Your task to perform on an android device: find which apps use the phone's location Image 0: 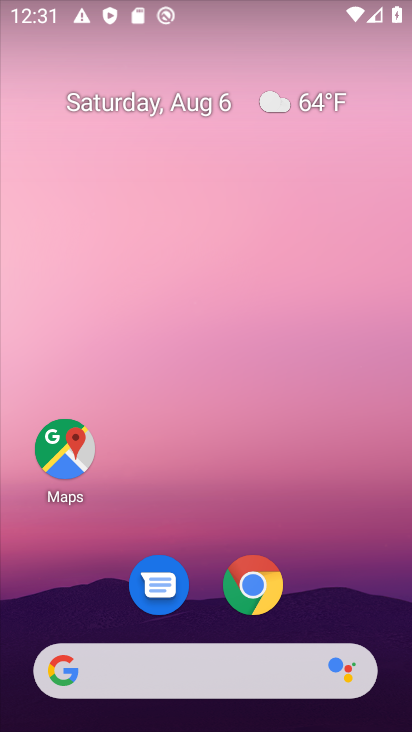
Step 0: drag from (316, 576) to (293, 9)
Your task to perform on an android device: find which apps use the phone's location Image 1: 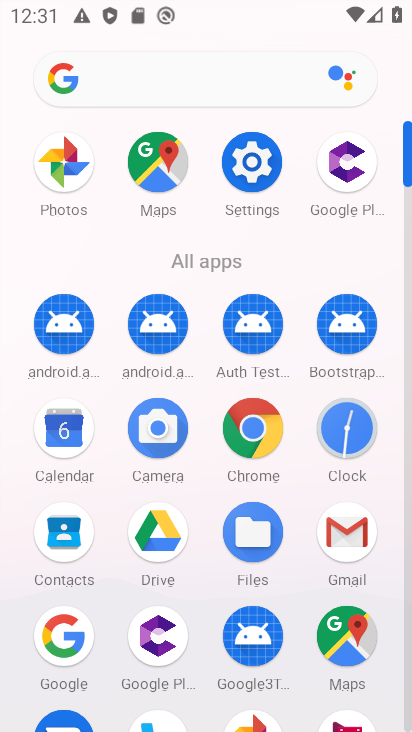
Step 1: click (259, 150)
Your task to perform on an android device: find which apps use the phone's location Image 2: 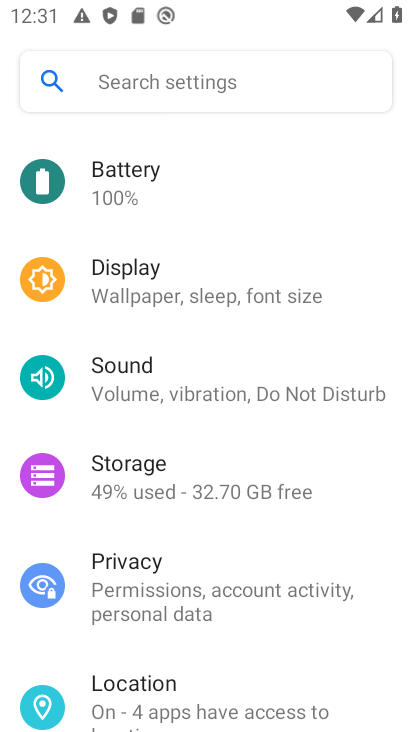
Step 2: click (175, 694)
Your task to perform on an android device: find which apps use the phone's location Image 3: 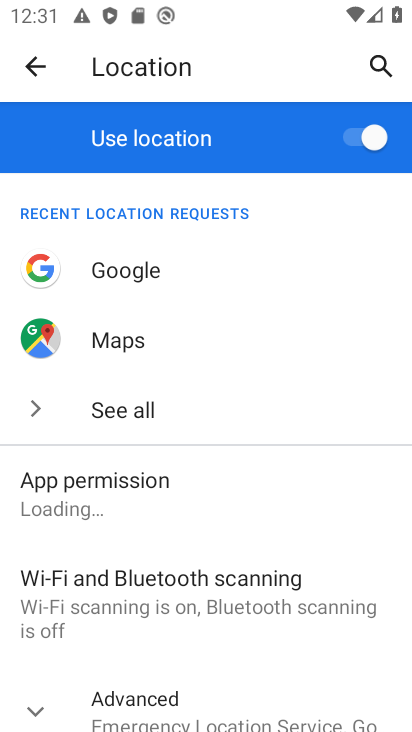
Step 3: click (131, 495)
Your task to perform on an android device: find which apps use the phone's location Image 4: 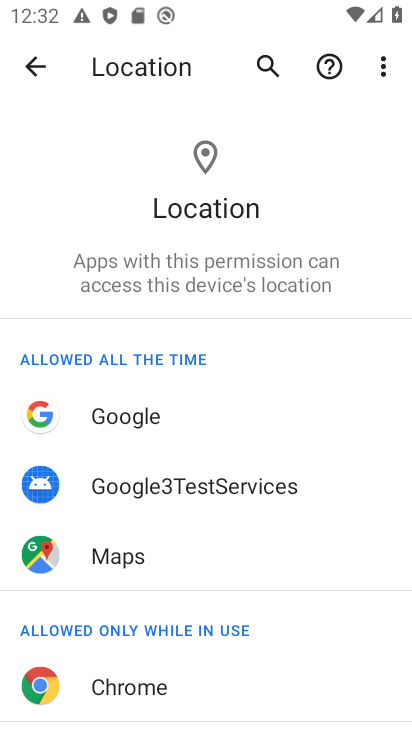
Step 4: task complete